Your task to perform on an android device: set the stopwatch Image 0: 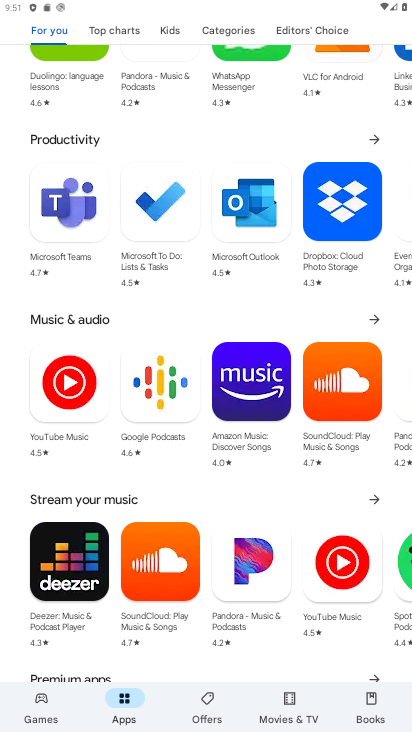
Step 0: press home button
Your task to perform on an android device: set the stopwatch Image 1: 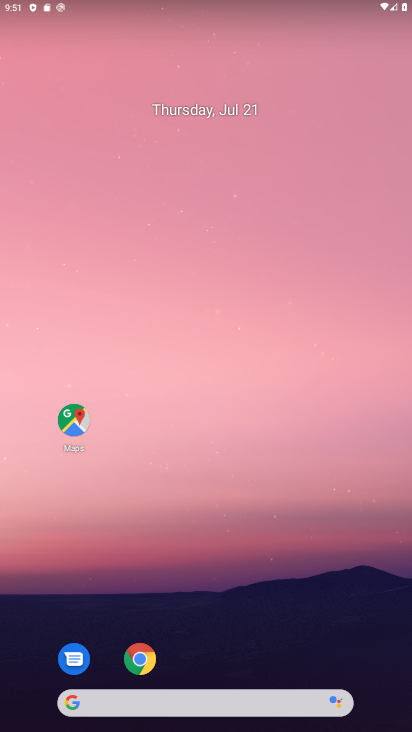
Step 1: drag from (304, 660) to (187, 37)
Your task to perform on an android device: set the stopwatch Image 2: 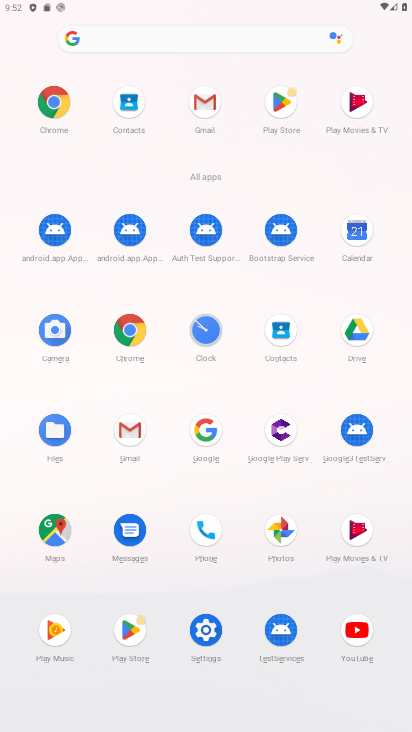
Step 2: click (212, 327)
Your task to perform on an android device: set the stopwatch Image 3: 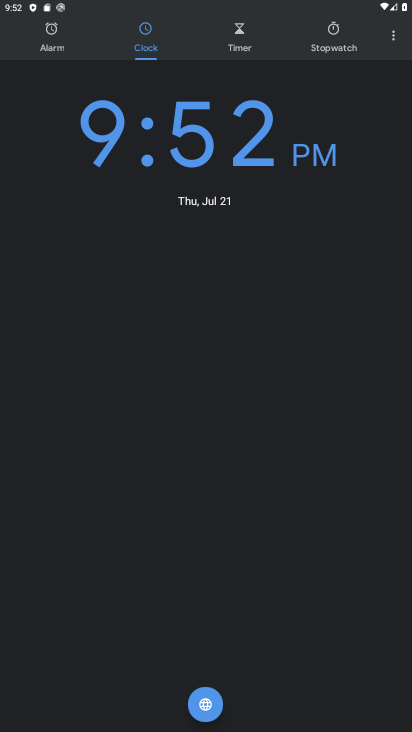
Step 3: click (341, 56)
Your task to perform on an android device: set the stopwatch Image 4: 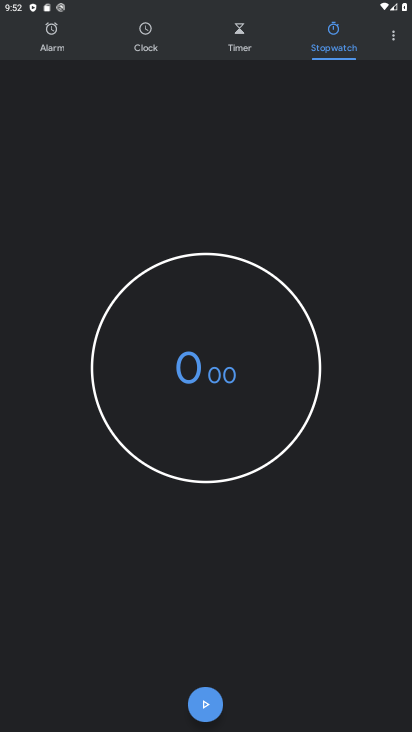
Step 4: click (210, 691)
Your task to perform on an android device: set the stopwatch Image 5: 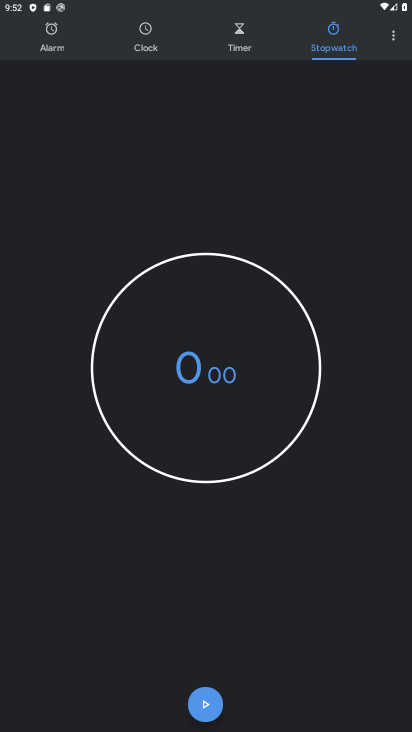
Step 5: click (206, 704)
Your task to perform on an android device: set the stopwatch Image 6: 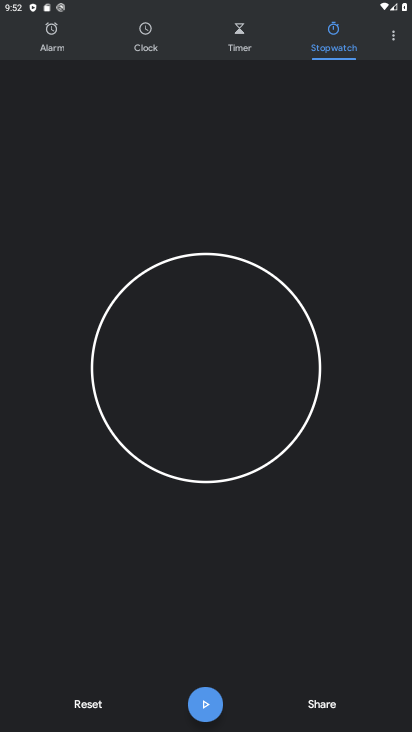
Step 6: task complete